Your task to perform on an android device: Open Chrome and go to the settings page Image 0: 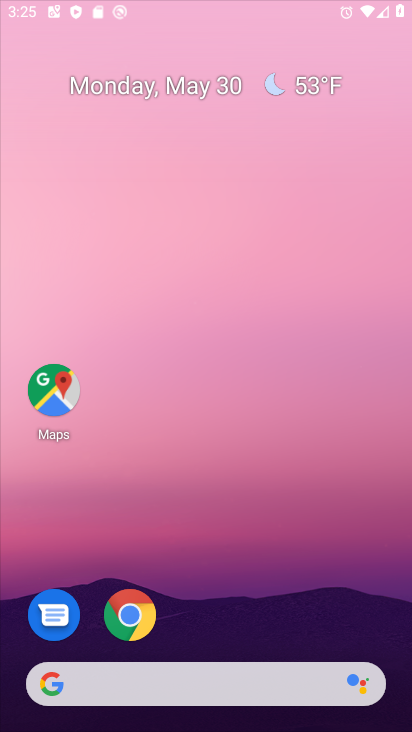
Step 0: click (149, 625)
Your task to perform on an android device: Open Chrome and go to the settings page Image 1: 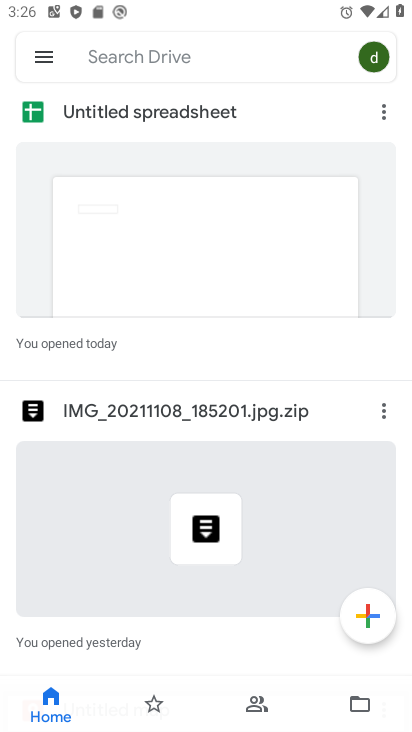
Step 1: press home button
Your task to perform on an android device: Open Chrome and go to the settings page Image 2: 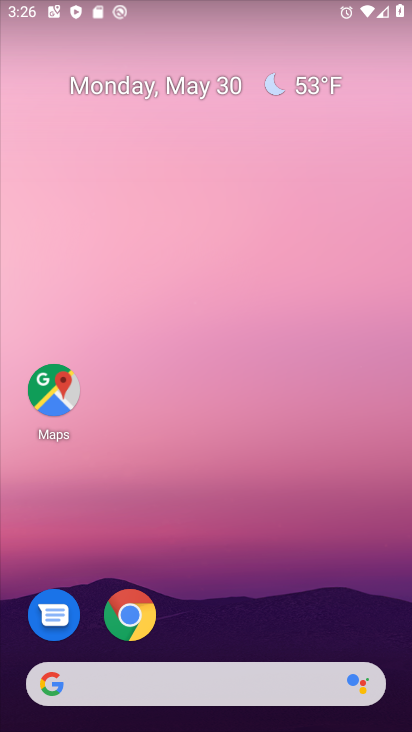
Step 2: click (138, 613)
Your task to perform on an android device: Open Chrome and go to the settings page Image 3: 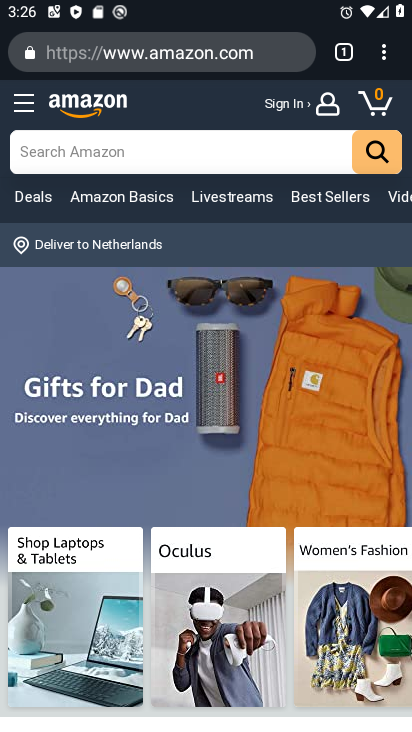
Step 3: click (389, 65)
Your task to perform on an android device: Open Chrome and go to the settings page Image 4: 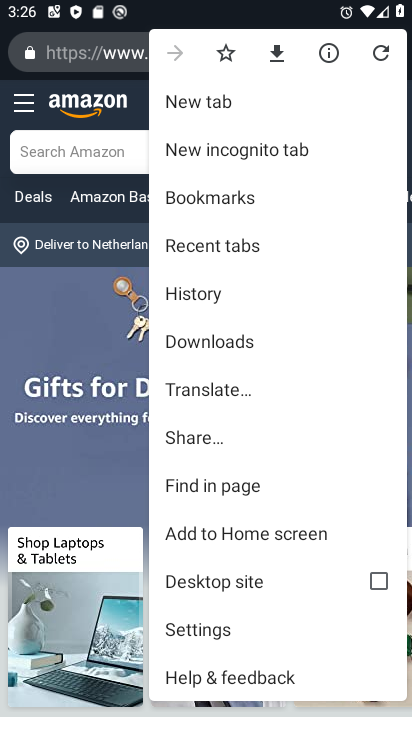
Step 4: click (237, 622)
Your task to perform on an android device: Open Chrome and go to the settings page Image 5: 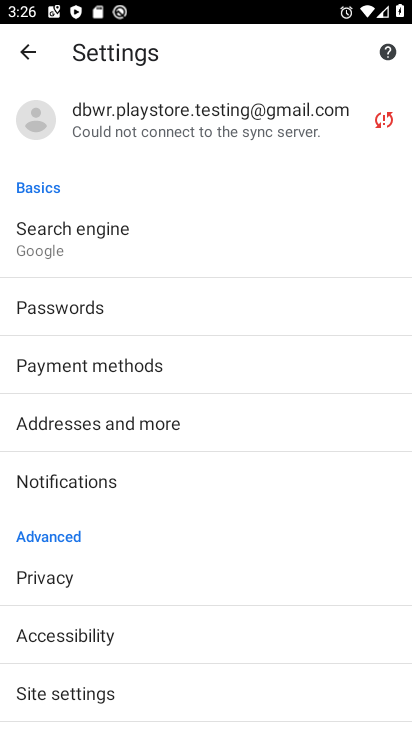
Step 5: task complete